Your task to perform on an android device: Go to ESPN.com Image 0: 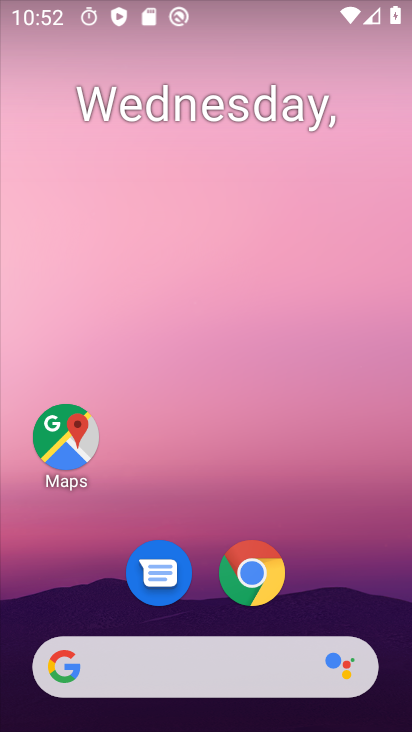
Step 0: click (250, 571)
Your task to perform on an android device: Go to ESPN.com Image 1: 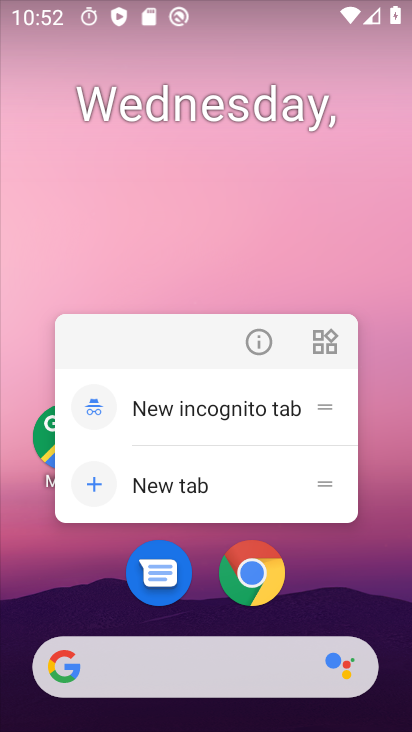
Step 1: click (250, 571)
Your task to perform on an android device: Go to ESPN.com Image 2: 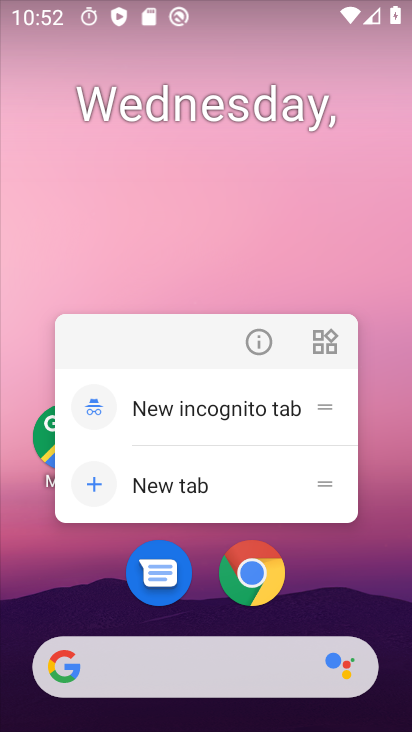
Step 2: click (250, 571)
Your task to perform on an android device: Go to ESPN.com Image 3: 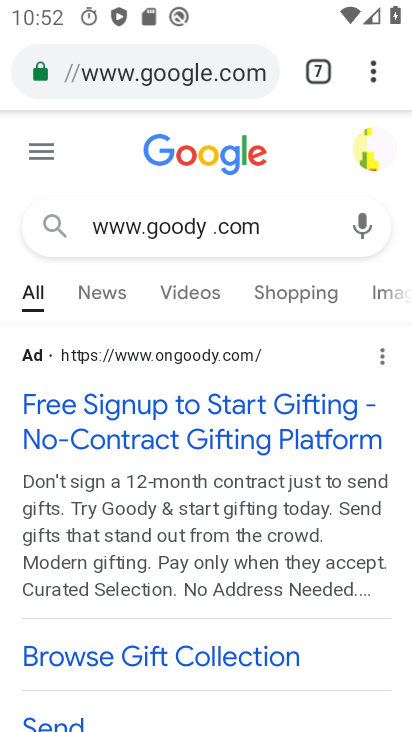
Step 3: click (262, 73)
Your task to perform on an android device: Go to ESPN.com Image 4: 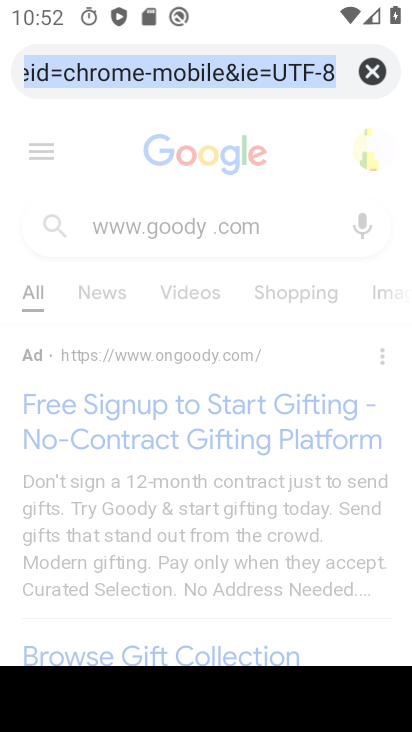
Step 4: click (368, 66)
Your task to perform on an android device: Go to ESPN.com Image 5: 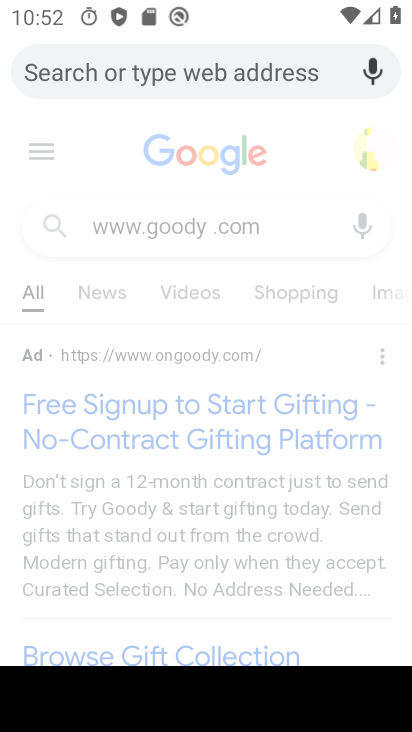
Step 5: type "ESPN.com"
Your task to perform on an android device: Go to ESPN.com Image 6: 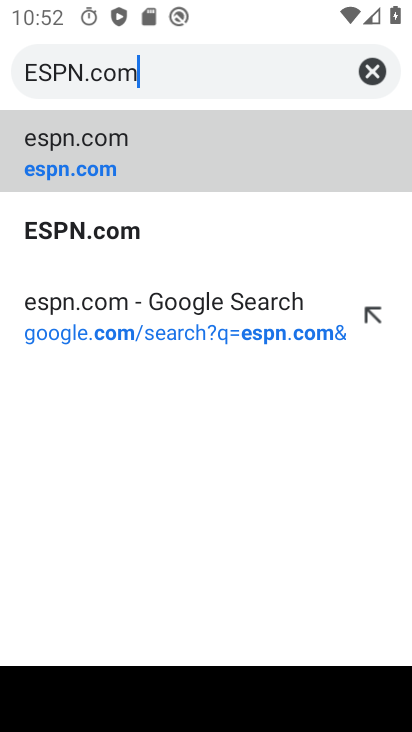
Step 6: click (101, 221)
Your task to perform on an android device: Go to ESPN.com Image 7: 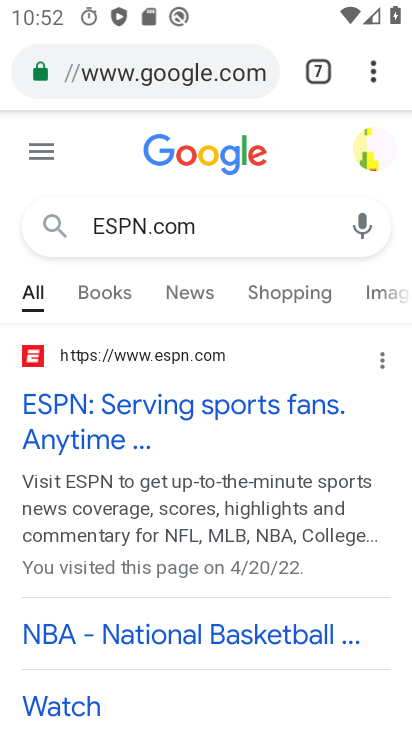
Step 7: task complete